Your task to perform on an android device: Open the web browser Image 0: 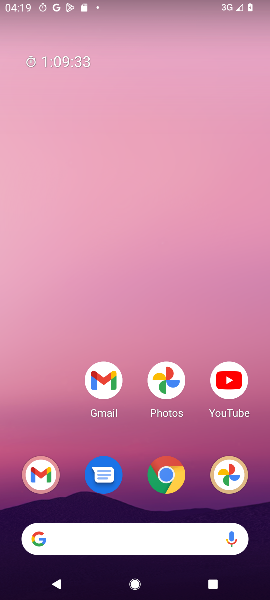
Step 0: press home button
Your task to perform on an android device: Open the web browser Image 1: 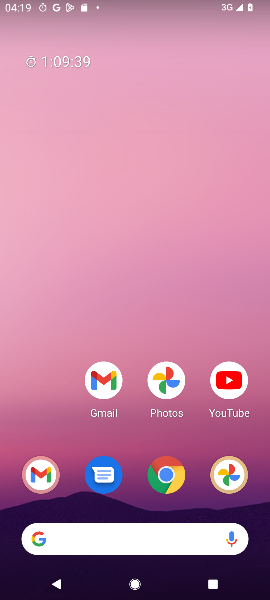
Step 1: drag from (49, 421) to (38, 184)
Your task to perform on an android device: Open the web browser Image 2: 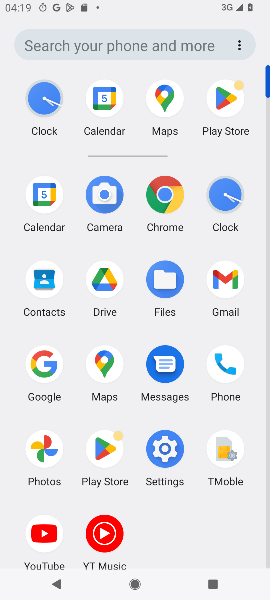
Step 2: click (170, 195)
Your task to perform on an android device: Open the web browser Image 3: 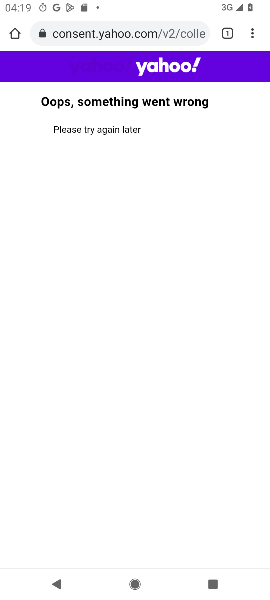
Step 3: task complete